Your task to perform on an android device: Go to sound settings Image 0: 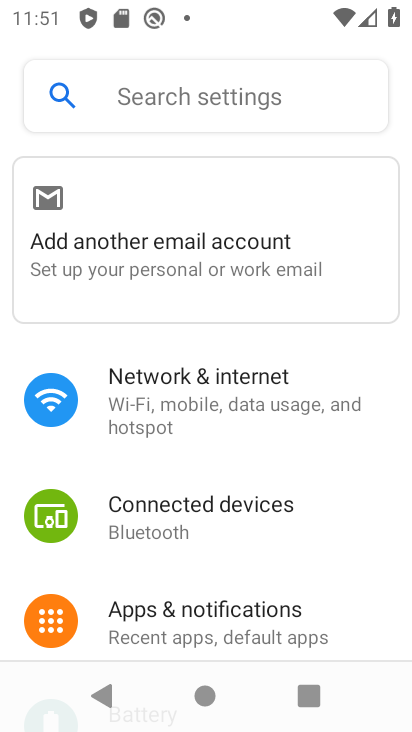
Step 0: drag from (193, 603) to (121, 346)
Your task to perform on an android device: Go to sound settings Image 1: 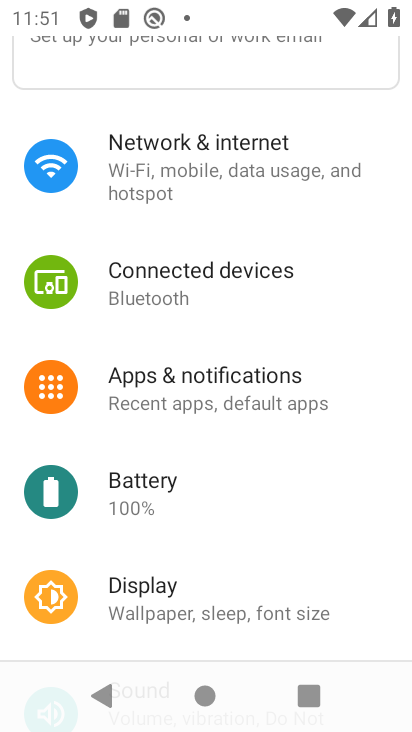
Step 1: drag from (180, 533) to (216, 229)
Your task to perform on an android device: Go to sound settings Image 2: 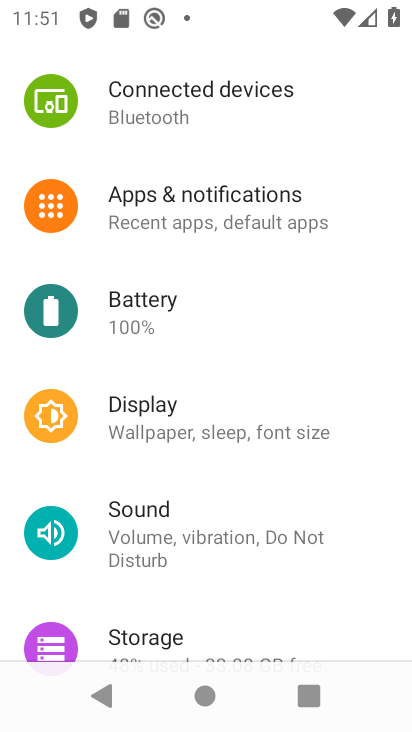
Step 2: click (139, 505)
Your task to perform on an android device: Go to sound settings Image 3: 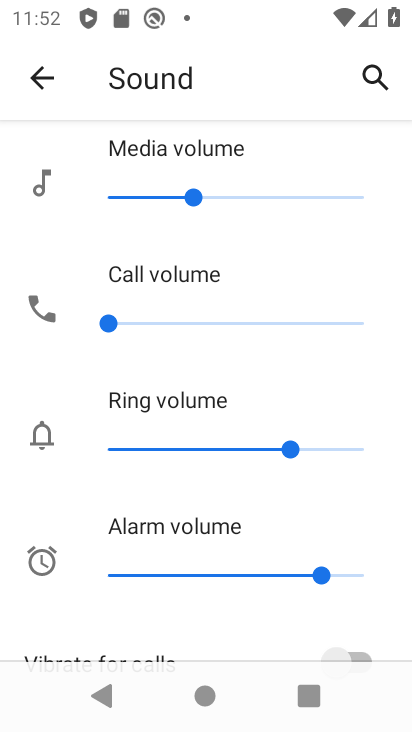
Step 3: click (26, 81)
Your task to perform on an android device: Go to sound settings Image 4: 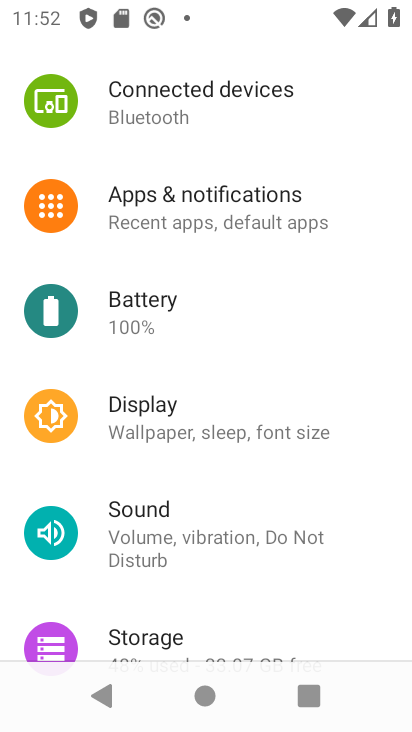
Step 4: click (152, 523)
Your task to perform on an android device: Go to sound settings Image 5: 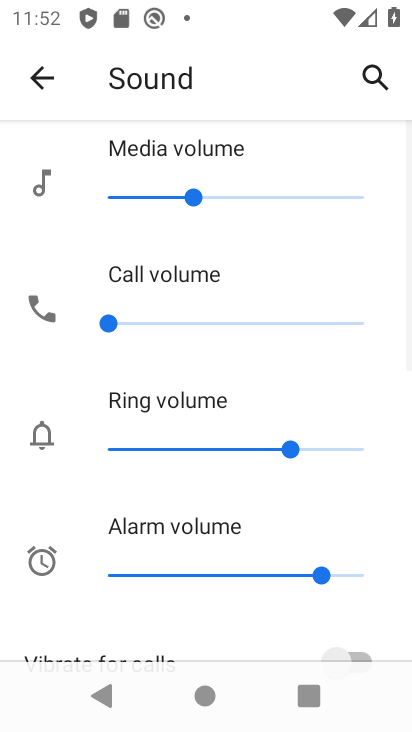
Step 5: task complete